Your task to perform on an android device: Search for vegetarian restaurants on Maps Image 0: 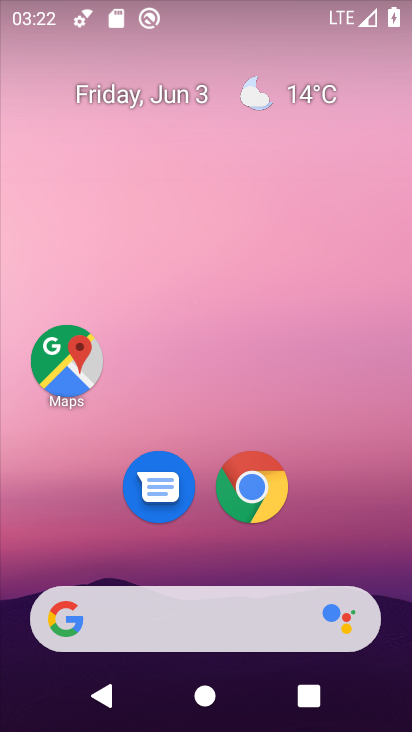
Step 0: click (90, 361)
Your task to perform on an android device: Search for vegetarian restaurants on Maps Image 1: 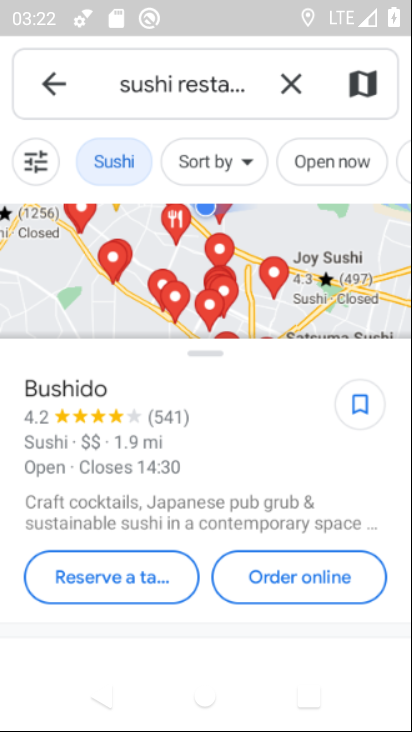
Step 1: click (289, 83)
Your task to perform on an android device: Search for vegetarian restaurants on Maps Image 2: 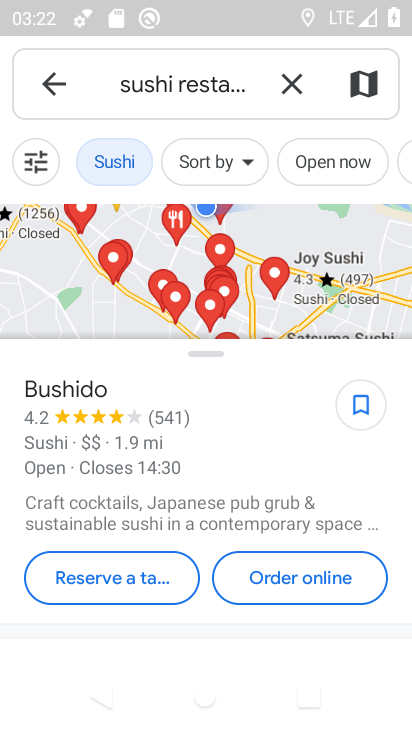
Step 2: click (283, 78)
Your task to perform on an android device: Search for vegetarian restaurants on Maps Image 3: 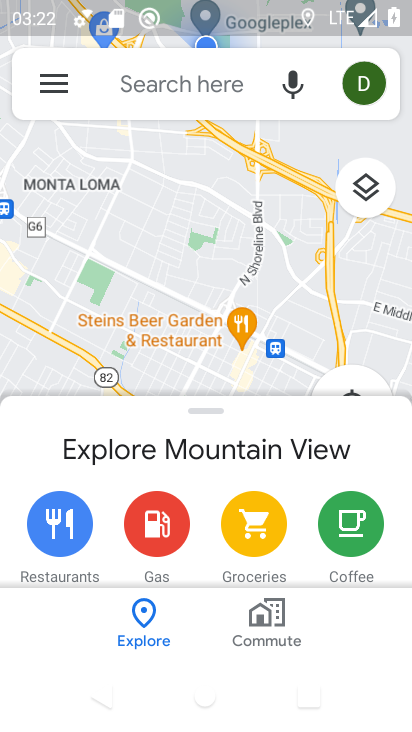
Step 3: click (181, 90)
Your task to perform on an android device: Search for vegetarian restaurants on Maps Image 4: 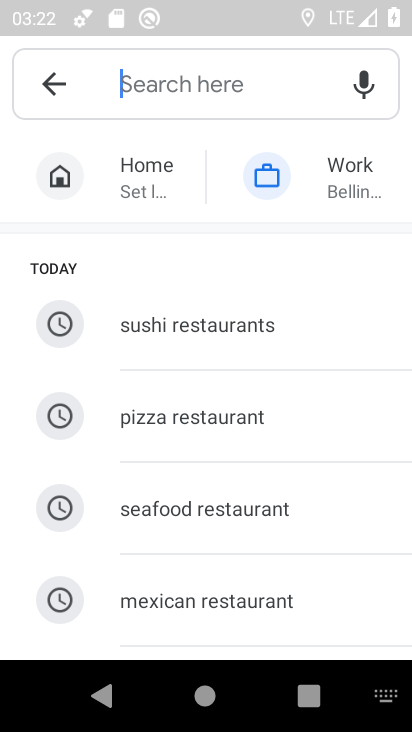
Step 4: drag from (195, 548) to (195, 139)
Your task to perform on an android device: Search for vegetarian restaurants on Maps Image 5: 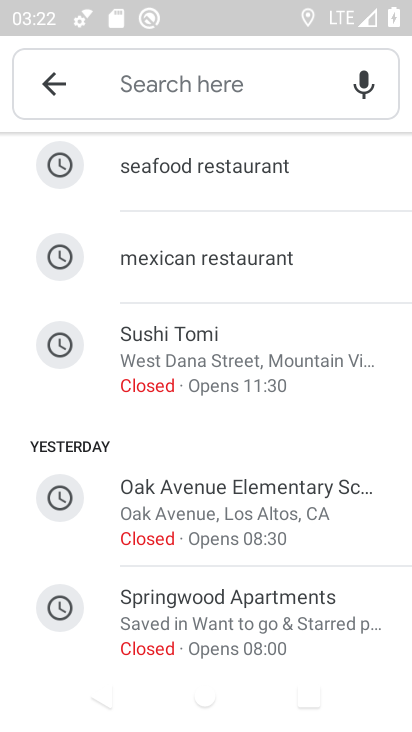
Step 5: click (209, 81)
Your task to perform on an android device: Search for vegetarian restaurants on Maps Image 6: 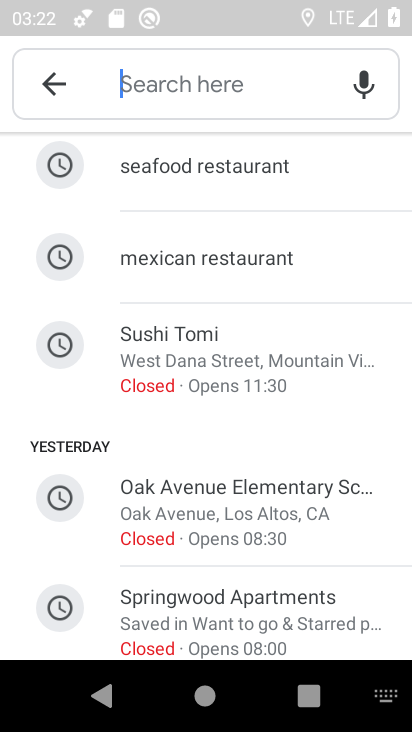
Step 6: type "vegetarian restaurants"
Your task to perform on an android device: Search for vegetarian restaurants on Maps Image 7: 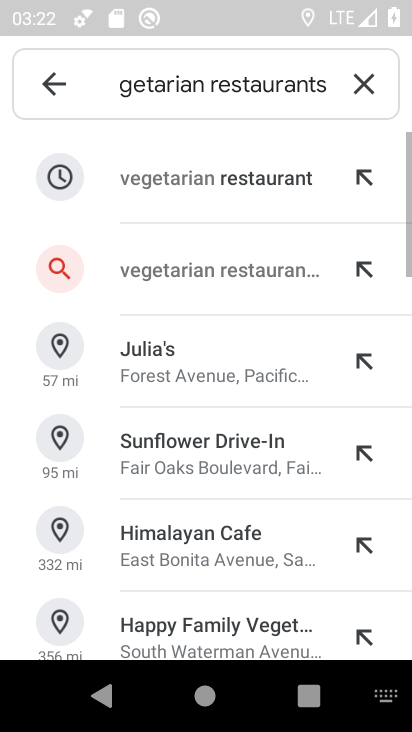
Step 7: click (181, 165)
Your task to perform on an android device: Search for vegetarian restaurants on Maps Image 8: 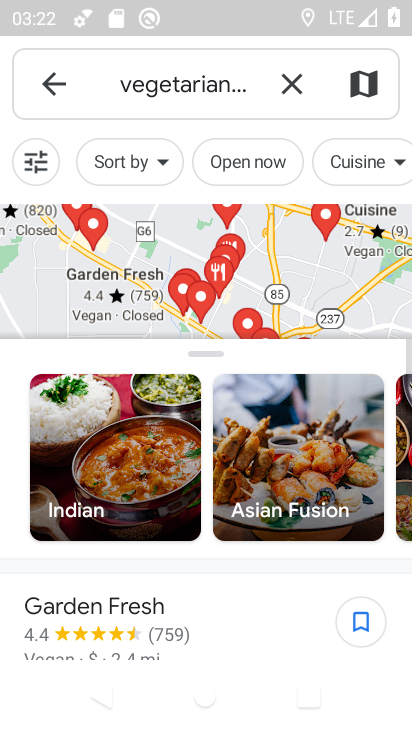
Step 8: task complete